Your task to perform on an android device: Go to Google maps Image 0: 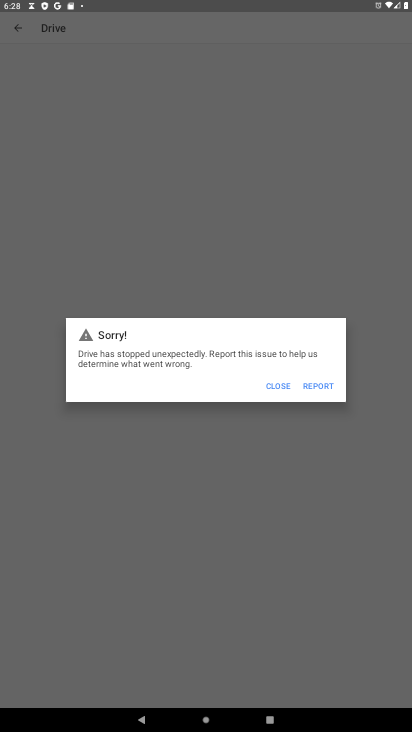
Step 0: press home button
Your task to perform on an android device: Go to Google maps Image 1: 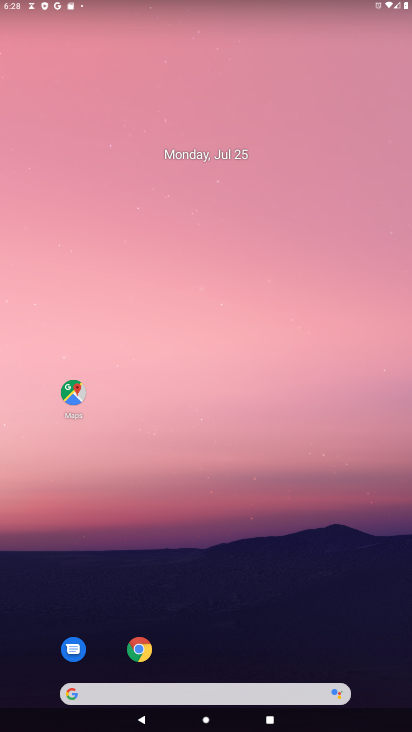
Step 1: drag from (271, 576) to (283, 123)
Your task to perform on an android device: Go to Google maps Image 2: 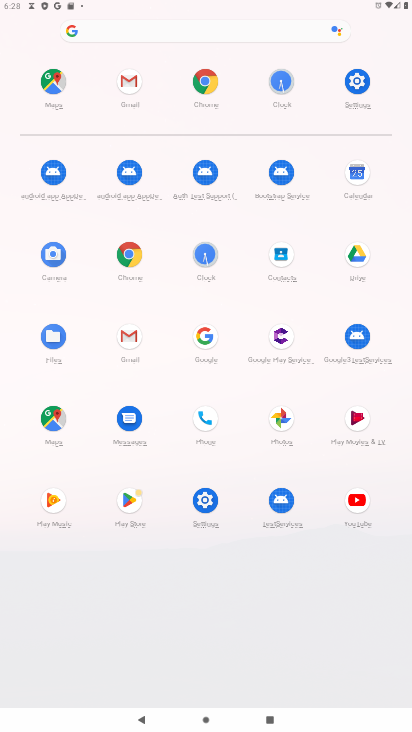
Step 2: click (46, 425)
Your task to perform on an android device: Go to Google maps Image 3: 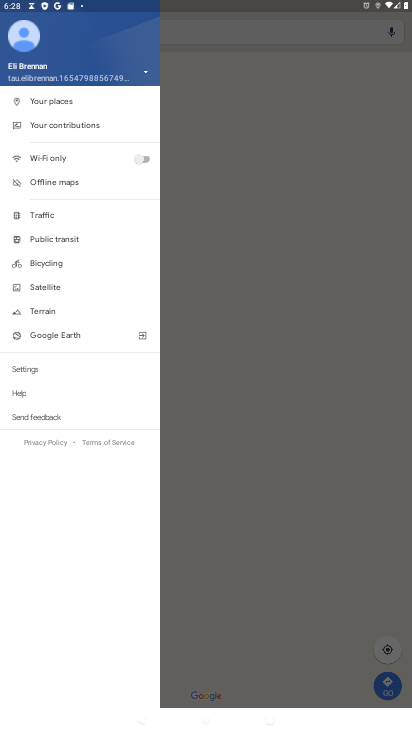
Step 3: click (376, 333)
Your task to perform on an android device: Go to Google maps Image 4: 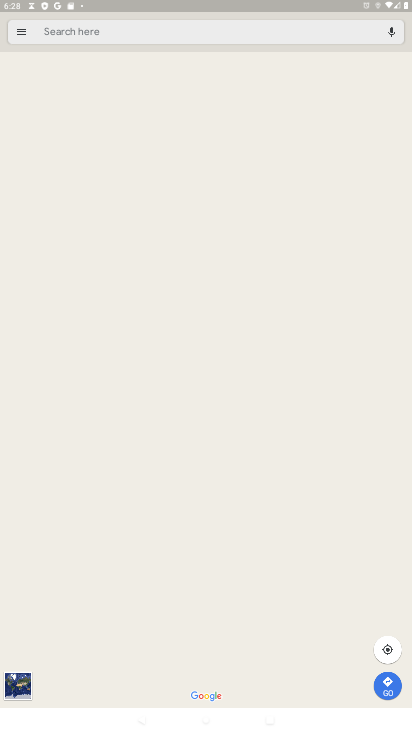
Step 4: task complete